Your task to perform on an android device: delete a single message in the gmail app Image 0: 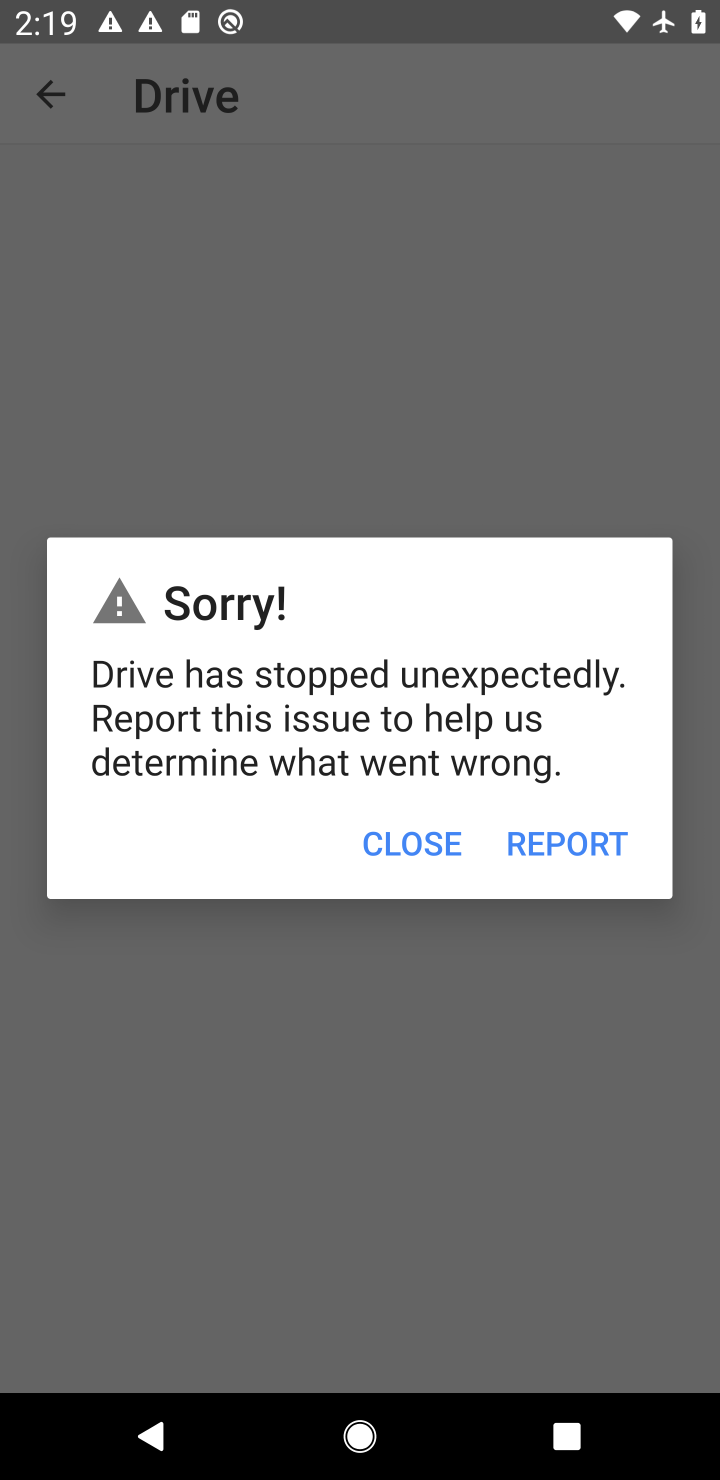
Step 0: task complete